Your task to perform on an android device: What's on my calendar today? Image 0: 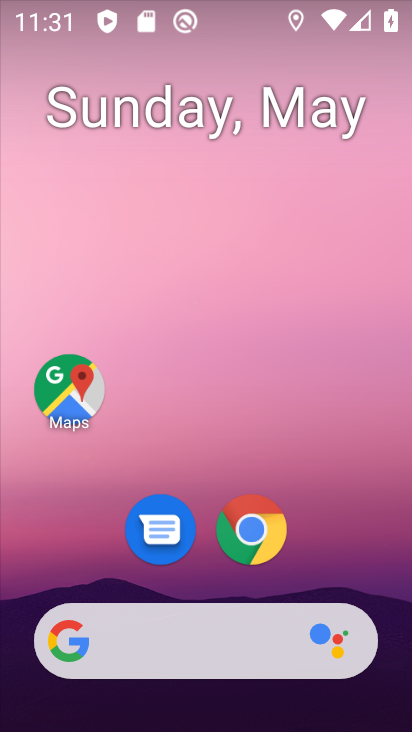
Step 0: drag from (331, 597) to (329, 7)
Your task to perform on an android device: What's on my calendar today? Image 1: 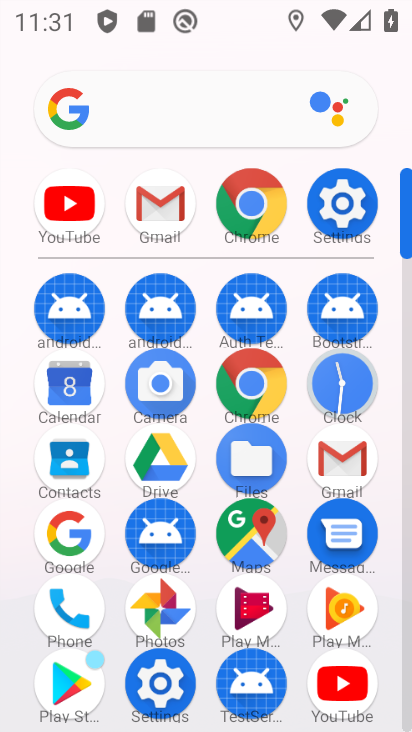
Step 1: click (79, 386)
Your task to perform on an android device: What's on my calendar today? Image 2: 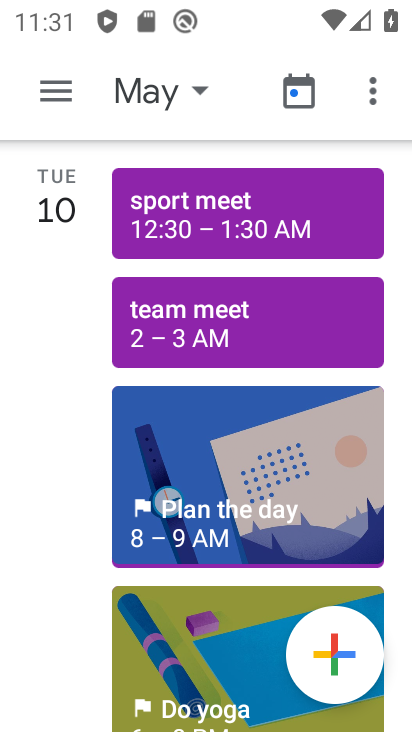
Step 2: click (194, 98)
Your task to perform on an android device: What's on my calendar today? Image 3: 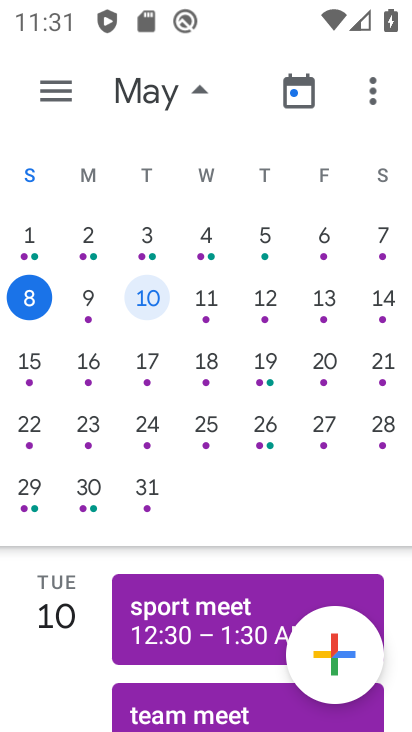
Step 3: click (76, 297)
Your task to perform on an android device: What's on my calendar today? Image 4: 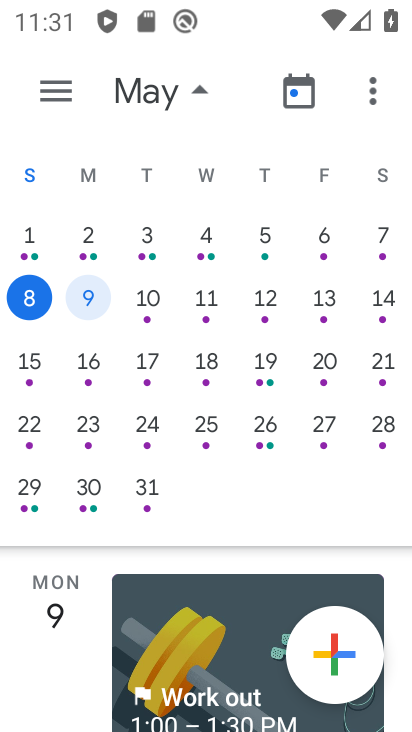
Step 4: task complete